Your task to perform on an android device: add a contact in the contacts app Image 0: 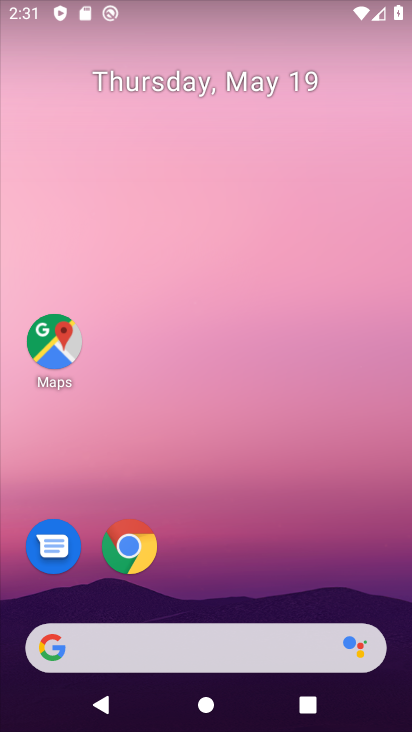
Step 0: press home button
Your task to perform on an android device: add a contact in the contacts app Image 1: 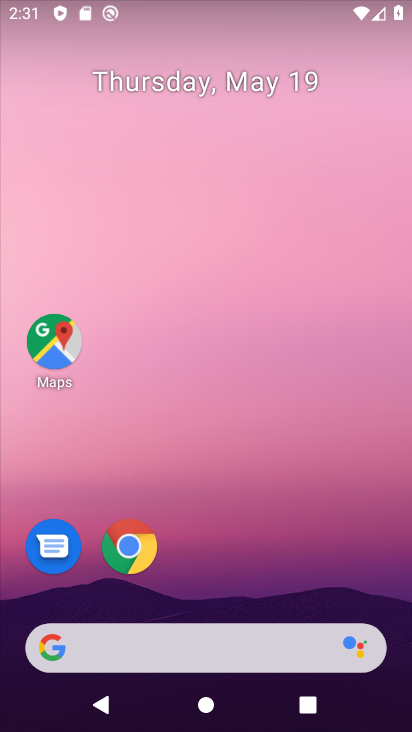
Step 1: drag from (200, 645) to (288, 177)
Your task to perform on an android device: add a contact in the contacts app Image 2: 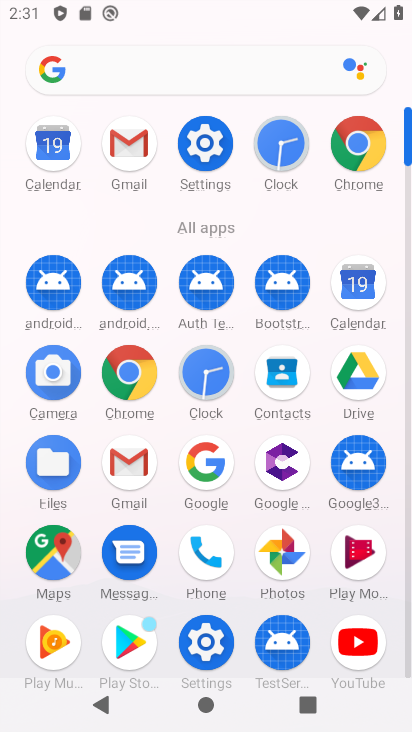
Step 2: click (282, 372)
Your task to perform on an android device: add a contact in the contacts app Image 3: 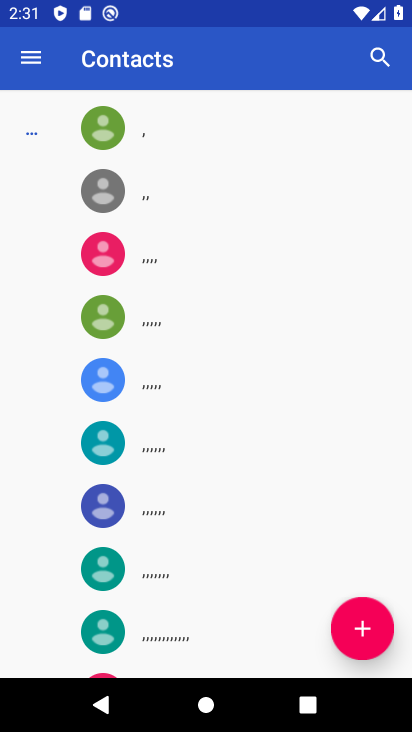
Step 3: click (370, 624)
Your task to perform on an android device: add a contact in the contacts app Image 4: 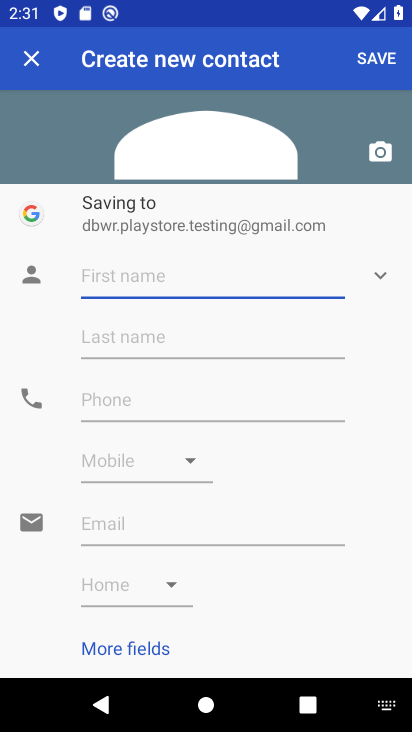
Step 4: click (120, 276)
Your task to perform on an android device: add a contact in the contacts app Image 5: 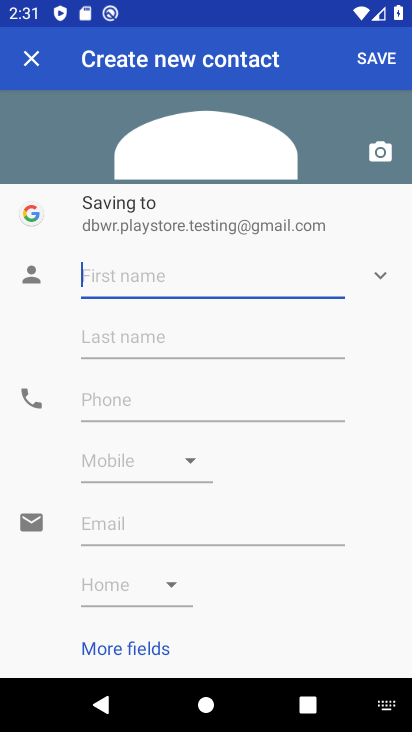
Step 5: type "byyyttt"
Your task to perform on an android device: add a contact in the contacts app Image 6: 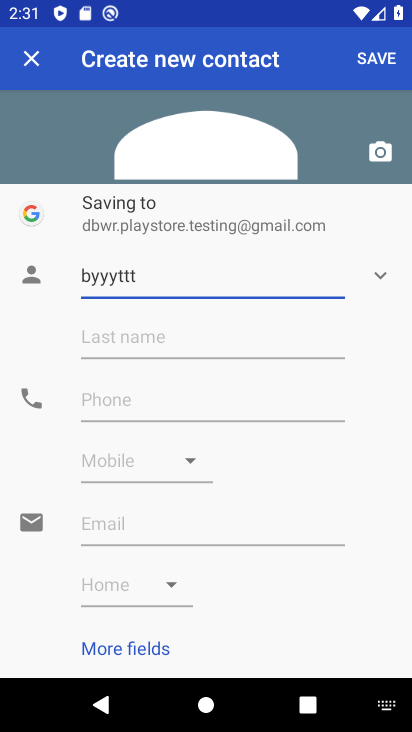
Step 6: click (113, 399)
Your task to perform on an android device: add a contact in the contacts app Image 7: 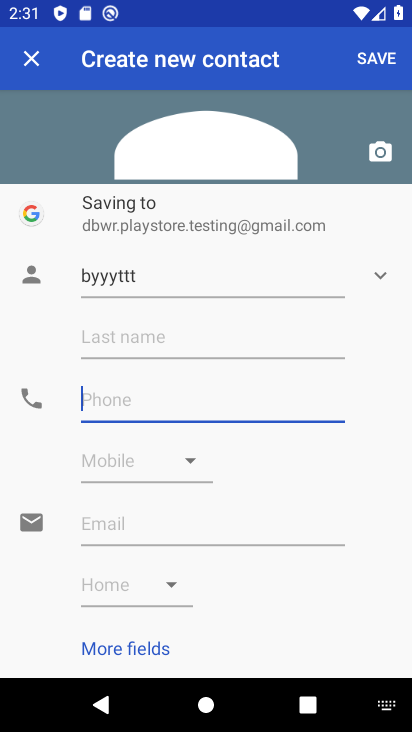
Step 7: type "72344646"
Your task to perform on an android device: add a contact in the contacts app Image 8: 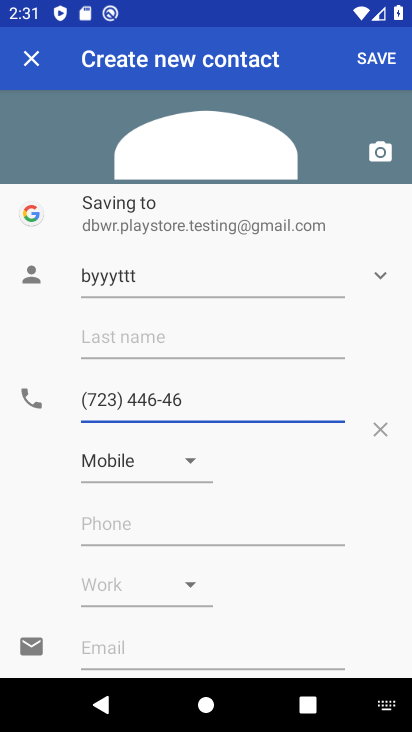
Step 8: click (387, 58)
Your task to perform on an android device: add a contact in the contacts app Image 9: 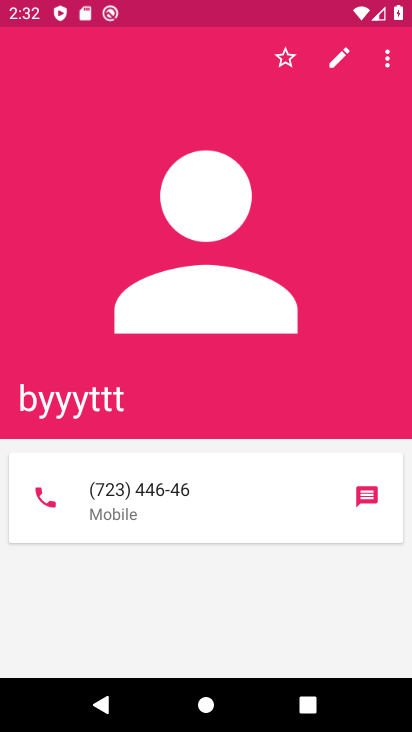
Step 9: task complete